Your task to perform on an android device: Open Youtube and go to "Your channel" Image 0: 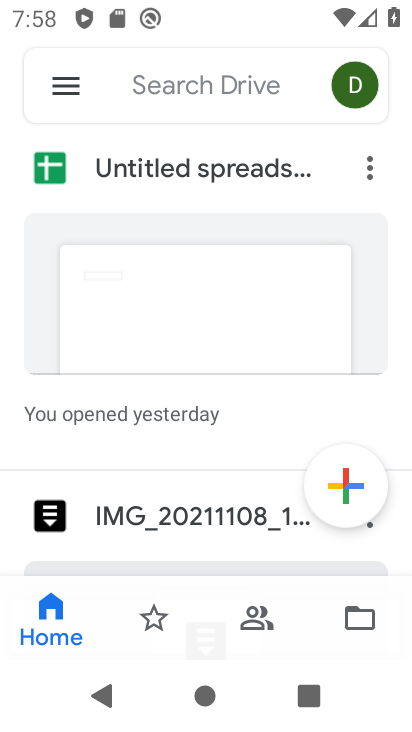
Step 0: press home button
Your task to perform on an android device: Open Youtube and go to "Your channel" Image 1: 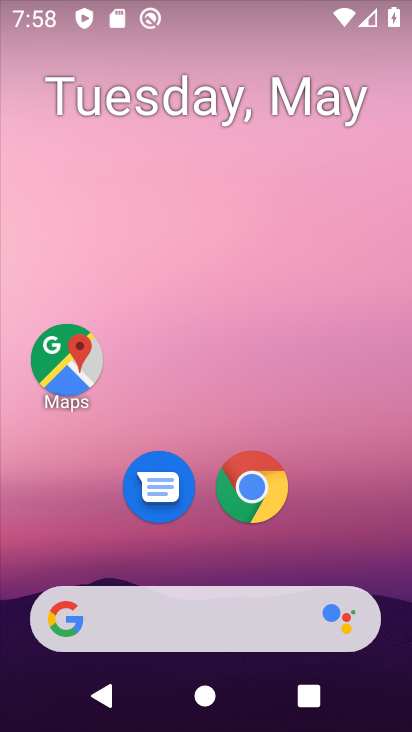
Step 1: drag from (312, 528) to (307, 118)
Your task to perform on an android device: Open Youtube and go to "Your channel" Image 2: 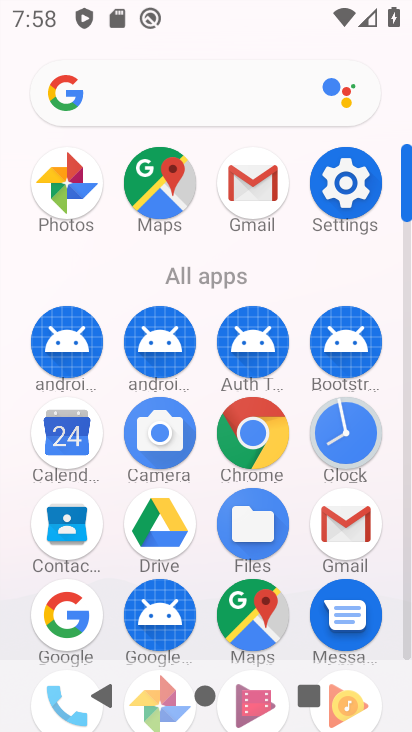
Step 2: drag from (308, 279) to (300, 18)
Your task to perform on an android device: Open Youtube and go to "Your channel" Image 3: 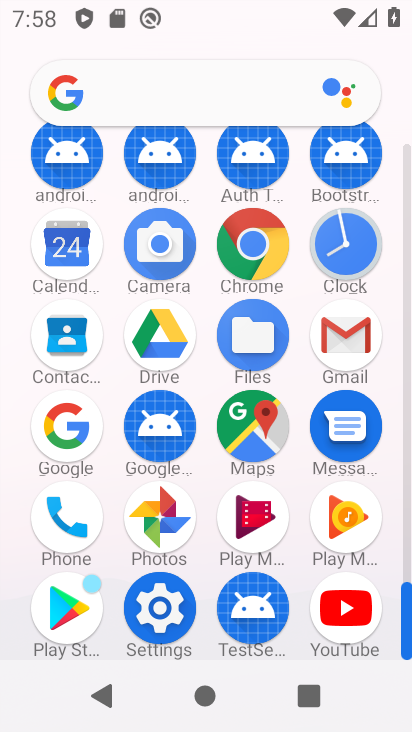
Step 3: click (347, 599)
Your task to perform on an android device: Open Youtube and go to "Your channel" Image 4: 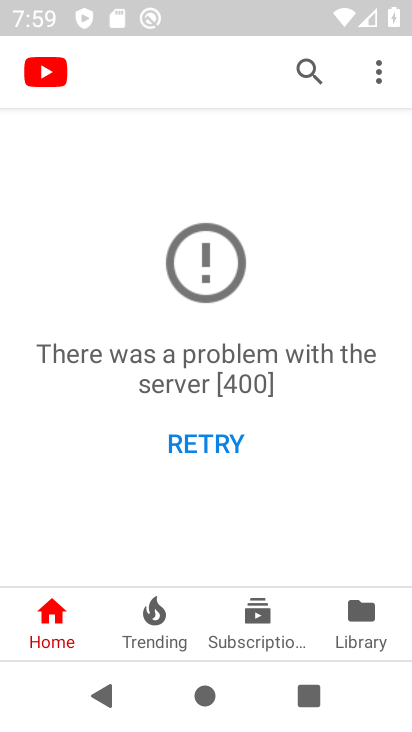
Step 4: task complete